Your task to perform on an android device: Open privacy settings Image 0: 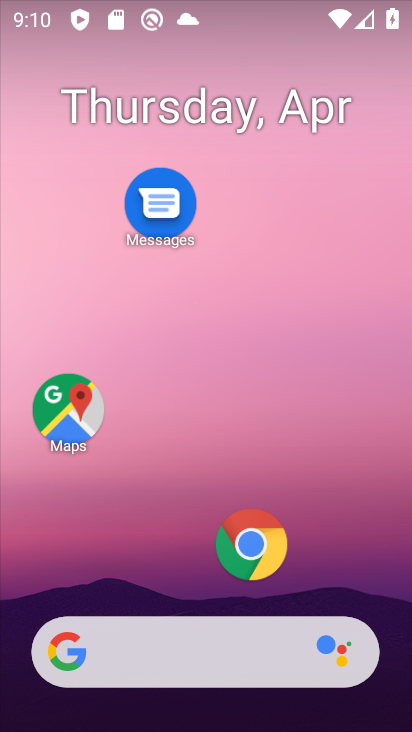
Step 0: drag from (248, 612) to (235, 245)
Your task to perform on an android device: Open privacy settings Image 1: 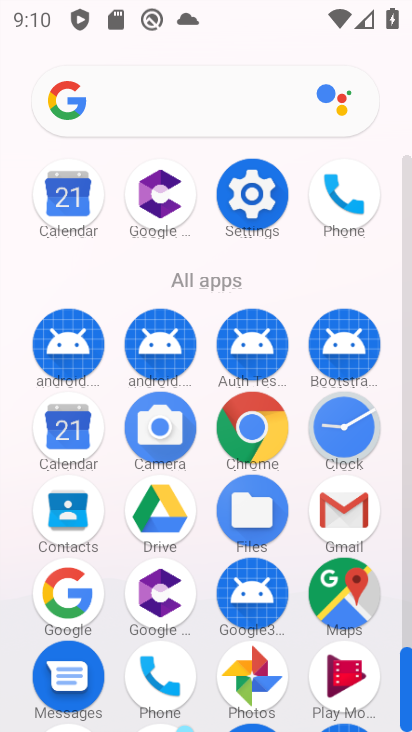
Step 1: click (251, 196)
Your task to perform on an android device: Open privacy settings Image 2: 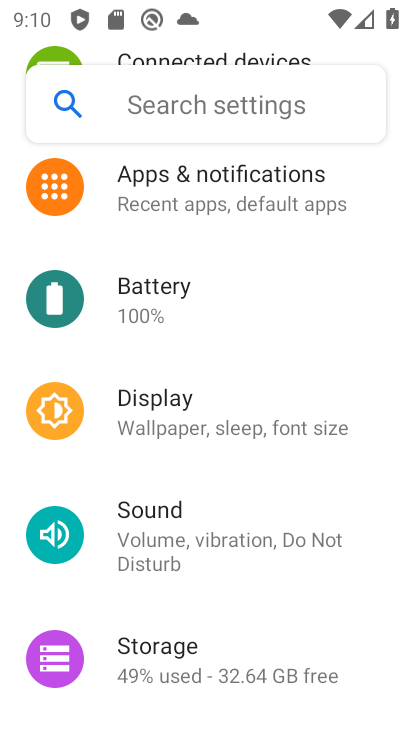
Step 2: drag from (205, 675) to (195, 368)
Your task to perform on an android device: Open privacy settings Image 3: 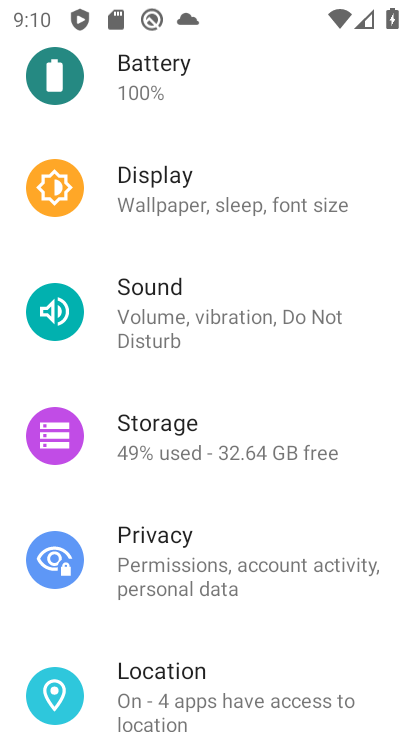
Step 3: click (170, 569)
Your task to perform on an android device: Open privacy settings Image 4: 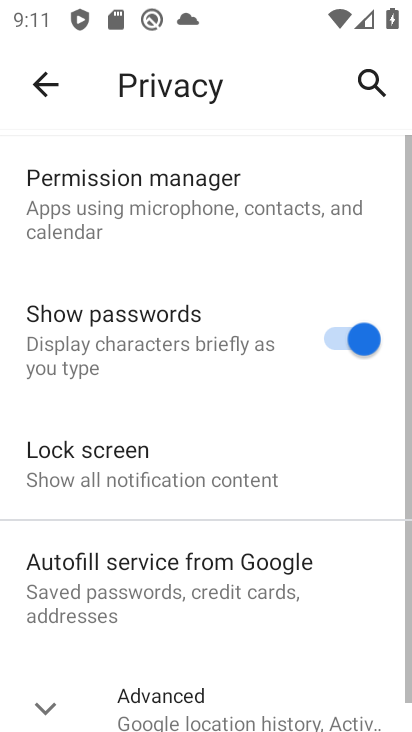
Step 4: click (192, 707)
Your task to perform on an android device: Open privacy settings Image 5: 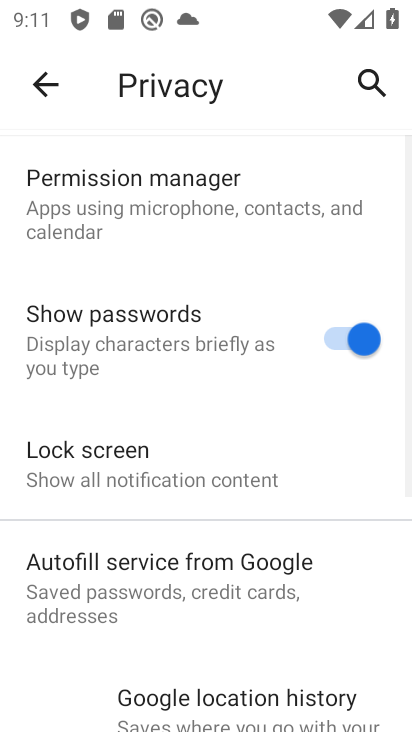
Step 5: task complete